Your task to perform on an android device: search for starred emails in the gmail app Image 0: 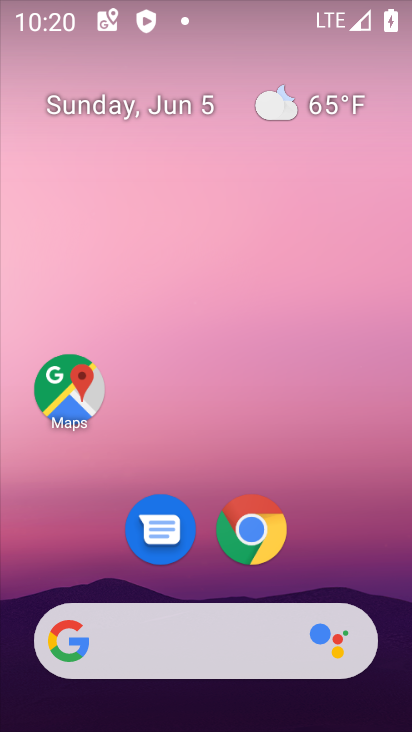
Step 0: drag from (78, 702) to (306, 28)
Your task to perform on an android device: search for starred emails in the gmail app Image 1: 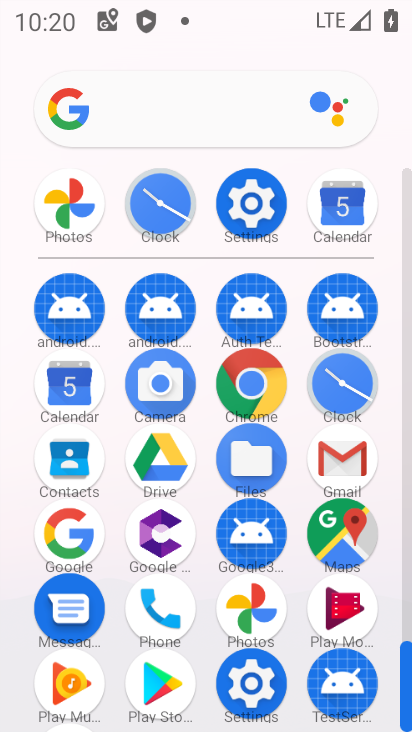
Step 1: click (352, 455)
Your task to perform on an android device: search for starred emails in the gmail app Image 2: 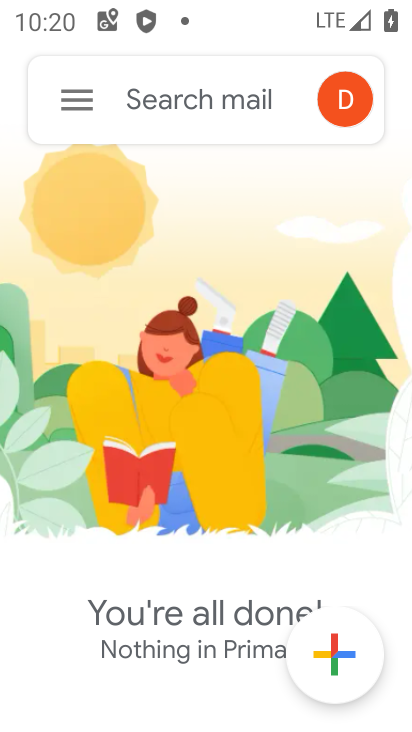
Step 2: click (78, 102)
Your task to perform on an android device: search for starred emails in the gmail app Image 3: 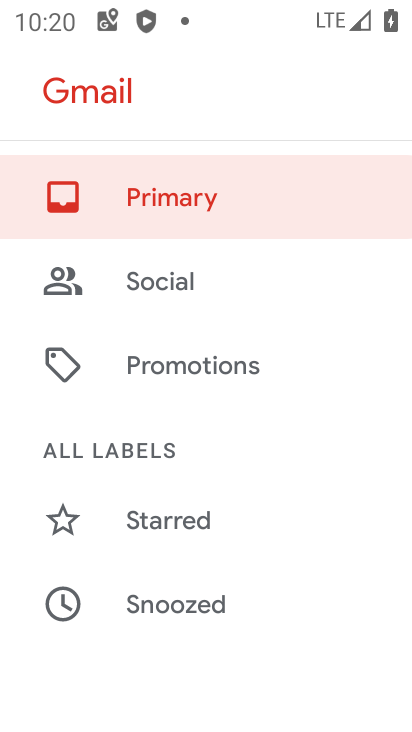
Step 3: click (239, 514)
Your task to perform on an android device: search for starred emails in the gmail app Image 4: 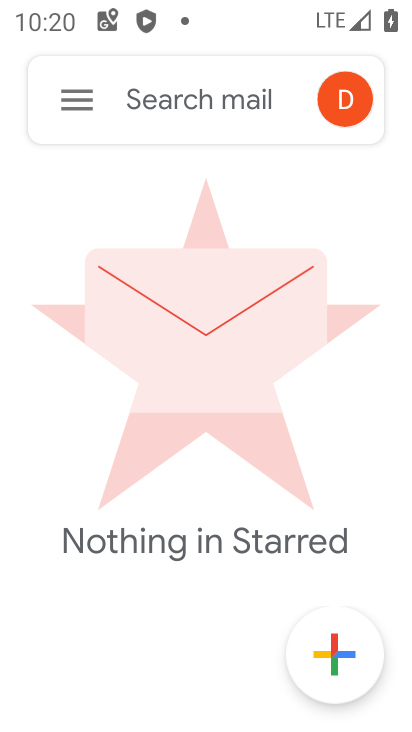
Step 4: task complete